Your task to perform on an android device: Open battery settings Image 0: 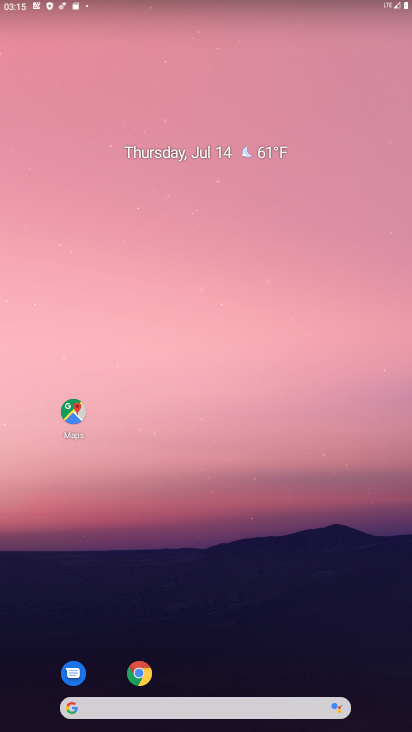
Step 0: drag from (228, 652) to (286, 93)
Your task to perform on an android device: Open battery settings Image 1: 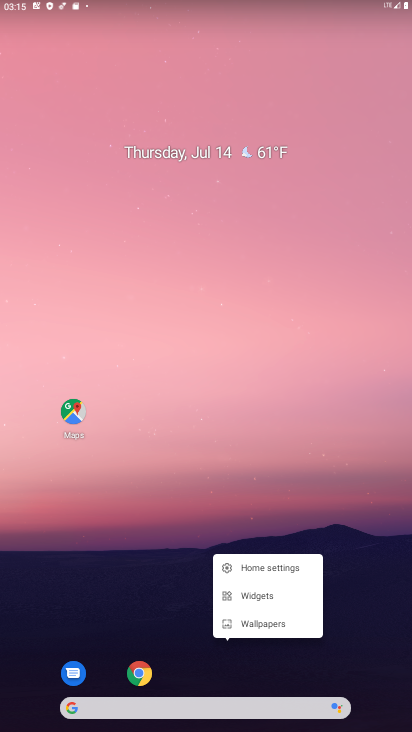
Step 1: click (292, 331)
Your task to perform on an android device: Open battery settings Image 2: 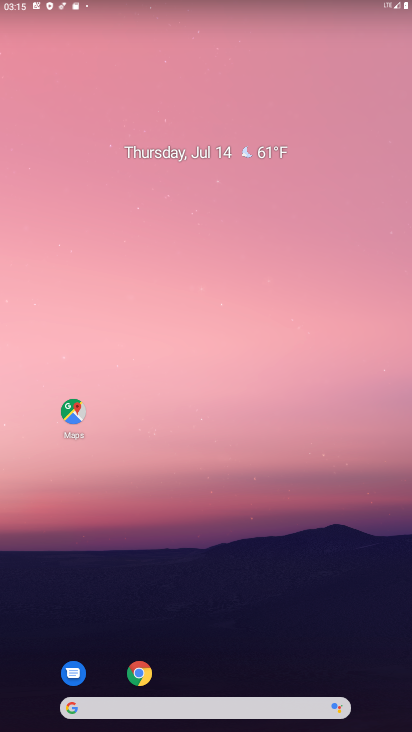
Step 2: drag from (258, 629) to (272, 99)
Your task to perform on an android device: Open battery settings Image 3: 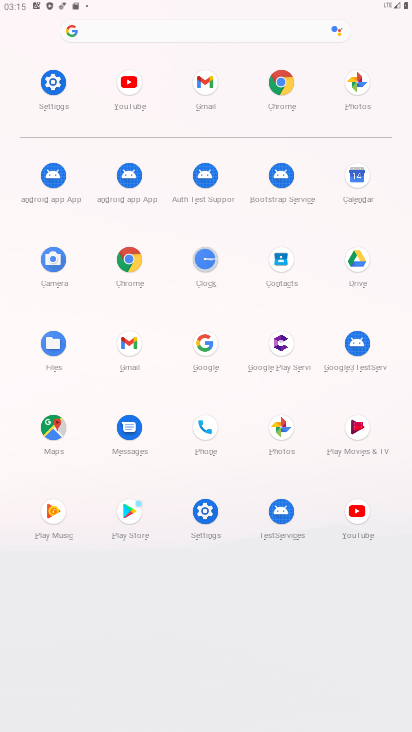
Step 3: click (39, 90)
Your task to perform on an android device: Open battery settings Image 4: 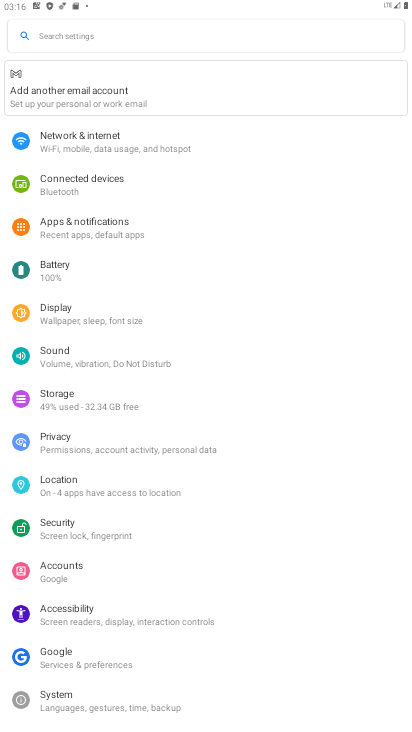
Step 4: click (81, 266)
Your task to perform on an android device: Open battery settings Image 5: 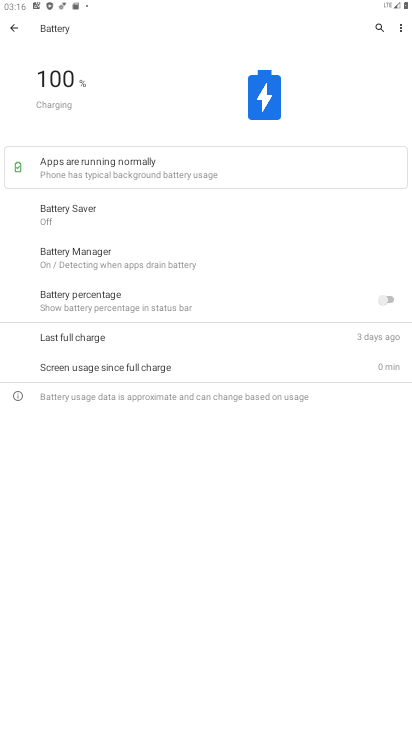
Step 5: task complete